Your task to perform on an android device: Go to privacy settings Image 0: 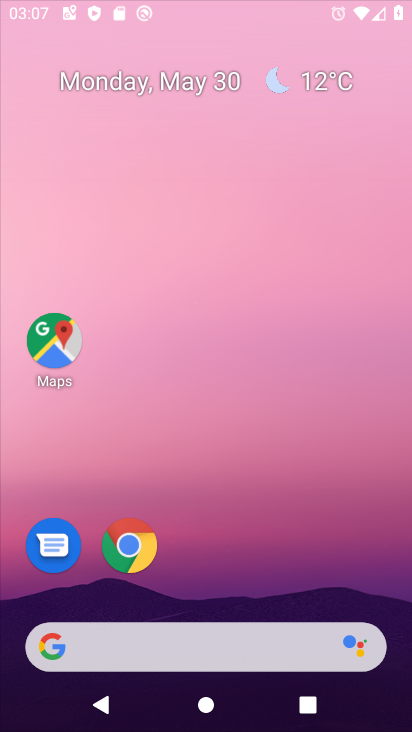
Step 0: press home button
Your task to perform on an android device: Go to privacy settings Image 1: 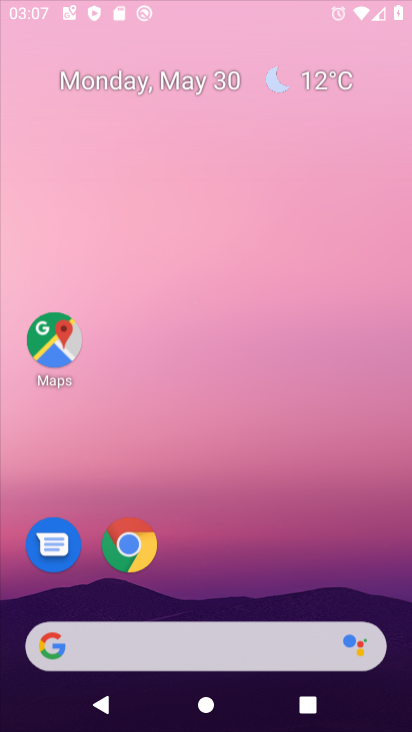
Step 1: drag from (219, 601) to (256, 78)
Your task to perform on an android device: Go to privacy settings Image 2: 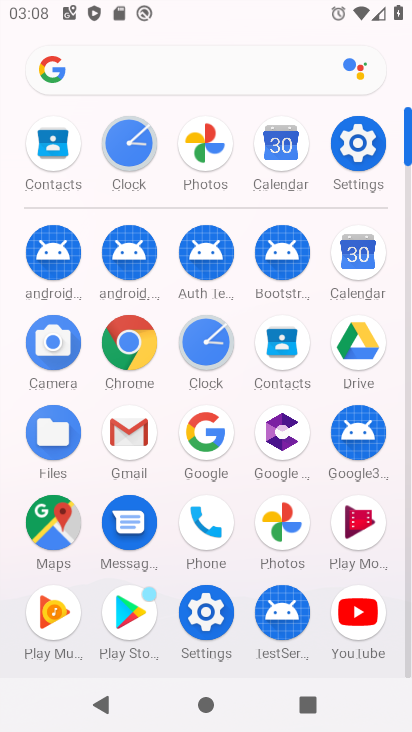
Step 2: click (207, 607)
Your task to perform on an android device: Go to privacy settings Image 3: 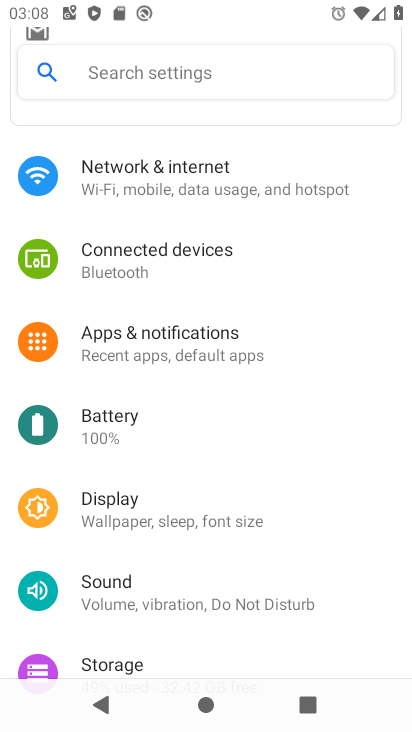
Step 3: drag from (178, 642) to (213, 131)
Your task to perform on an android device: Go to privacy settings Image 4: 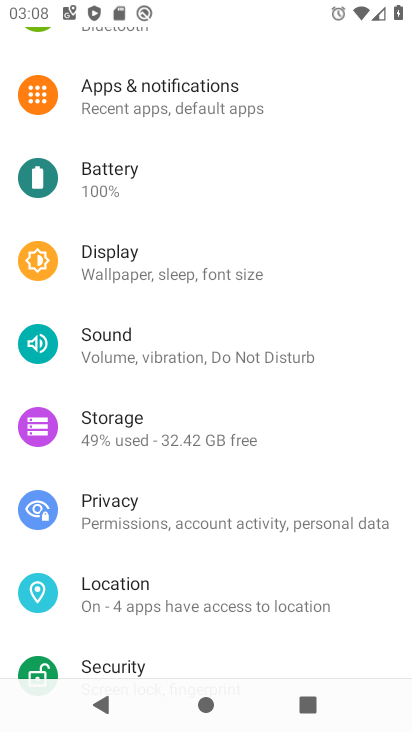
Step 4: click (157, 495)
Your task to perform on an android device: Go to privacy settings Image 5: 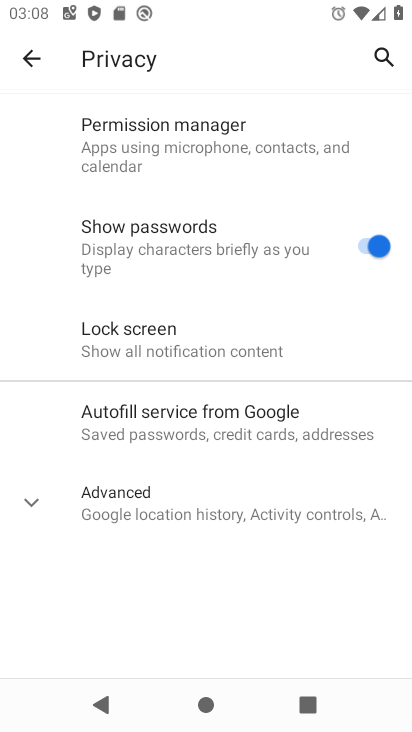
Step 5: click (32, 499)
Your task to perform on an android device: Go to privacy settings Image 6: 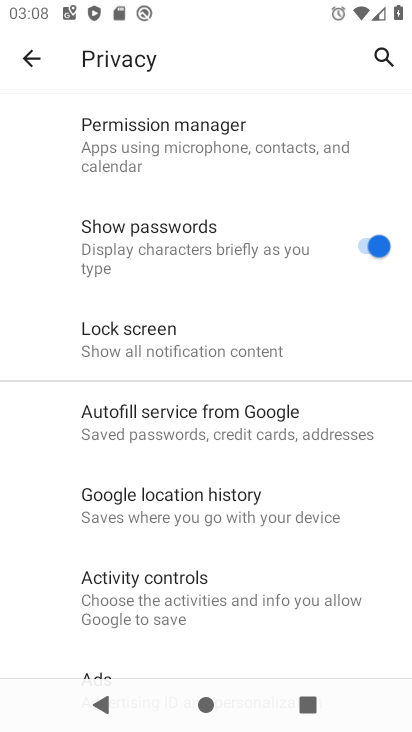
Step 6: task complete